Your task to perform on an android device: find which apps use the phone's location Image 0: 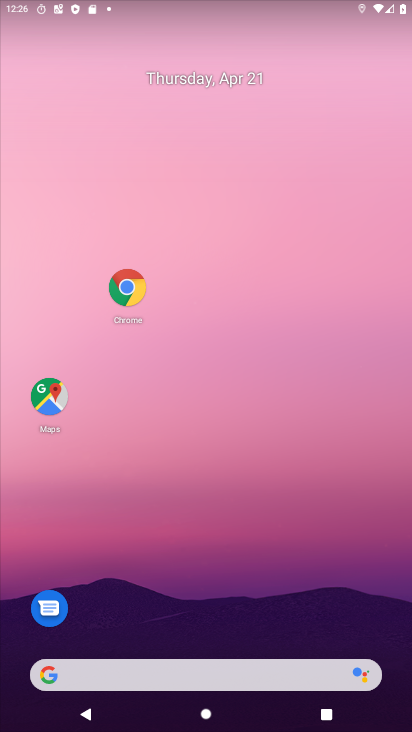
Step 0: click (92, 86)
Your task to perform on an android device: find which apps use the phone's location Image 1: 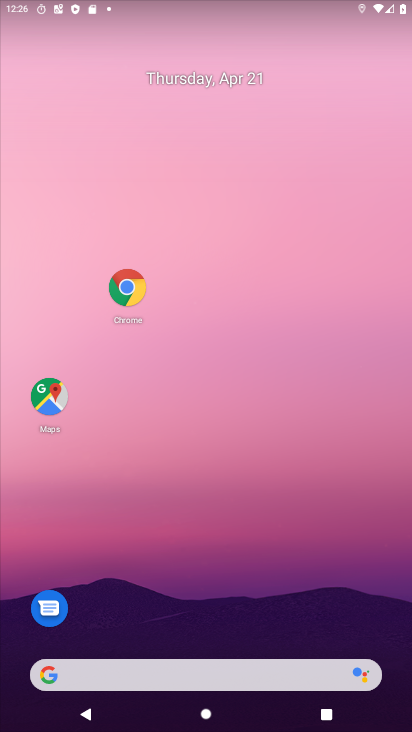
Step 1: drag from (273, 439) to (242, 52)
Your task to perform on an android device: find which apps use the phone's location Image 2: 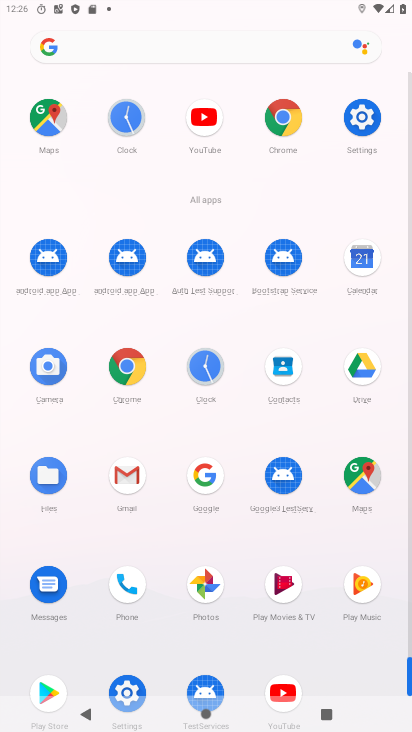
Step 2: click (361, 123)
Your task to perform on an android device: find which apps use the phone's location Image 3: 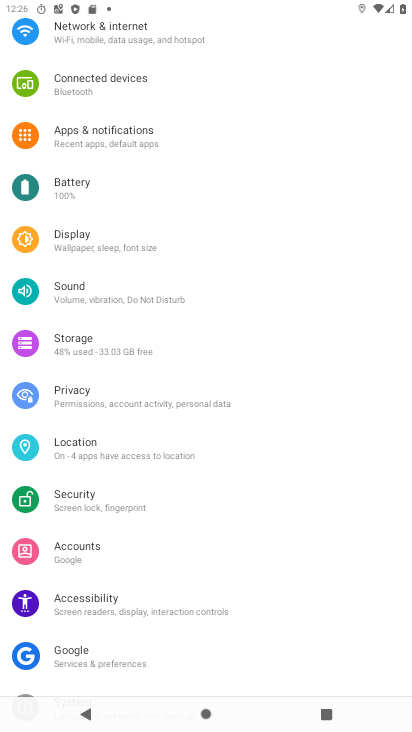
Step 3: click (102, 454)
Your task to perform on an android device: find which apps use the phone's location Image 4: 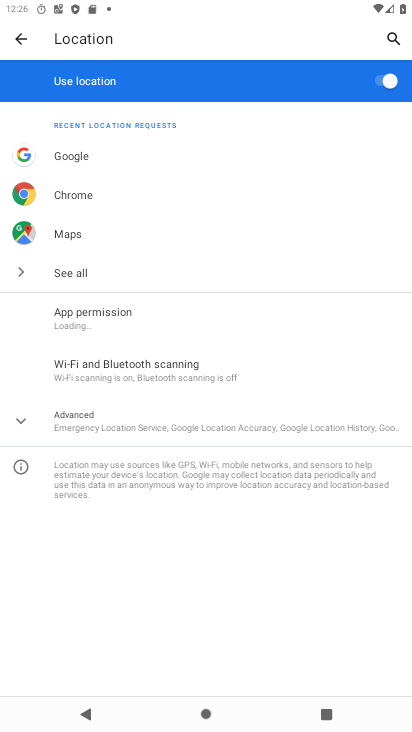
Step 4: click (94, 314)
Your task to perform on an android device: find which apps use the phone's location Image 5: 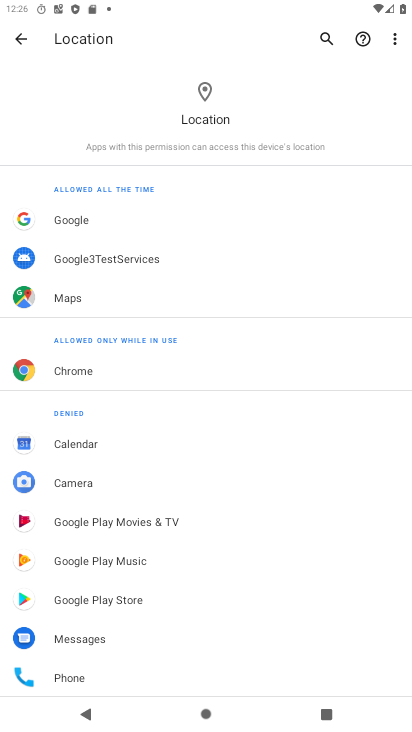
Step 5: task complete